Your task to perform on an android device: open the mobile data screen to see how much data has been used Image 0: 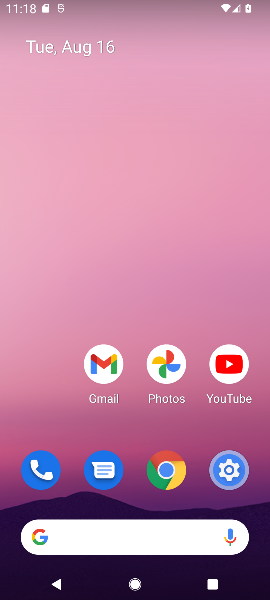
Step 0: click (228, 469)
Your task to perform on an android device: open the mobile data screen to see how much data has been used Image 1: 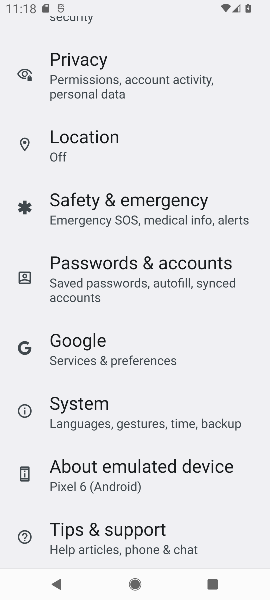
Step 1: drag from (125, 162) to (164, 503)
Your task to perform on an android device: open the mobile data screen to see how much data has been used Image 2: 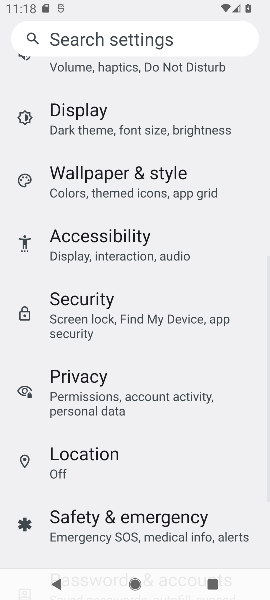
Step 2: drag from (136, 176) to (167, 513)
Your task to perform on an android device: open the mobile data screen to see how much data has been used Image 3: 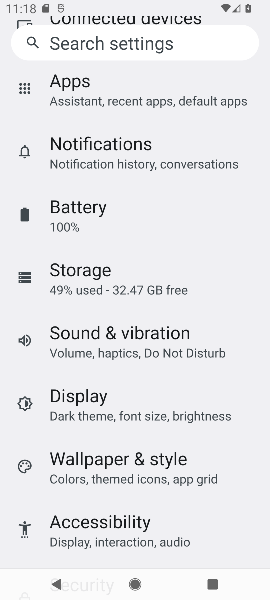
Step 3: drag from (155, 262) to (168, 508)
Your task to perform on an android device: open the mobile data screen to see how much data has been used Image 4: 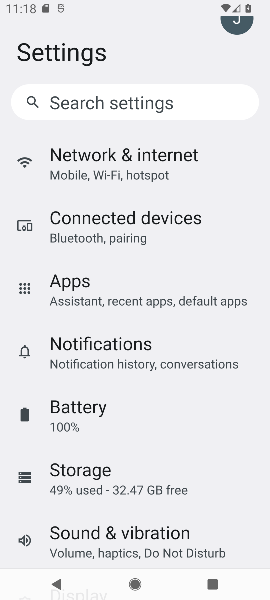
Step 4: click (149, 158)
Your task to perform on an android device: open the mobile data screen to see how much data has been used Image 5: 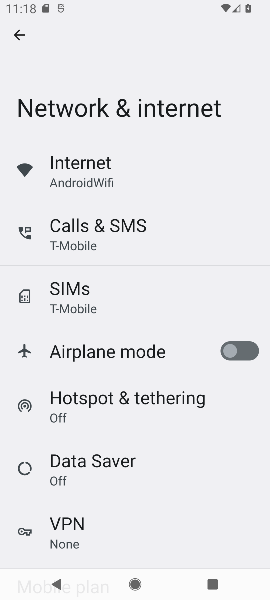
Step 5: click (86, 299)
Your task to perform on an android device: open the mobile data screen to see how much data has been used Image 6: 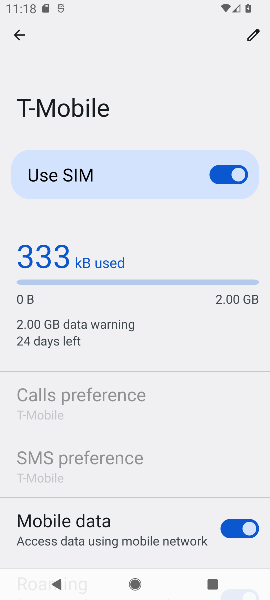
Step 6: task complete